Your task to perform on an android device: Open internet settings Image 0: 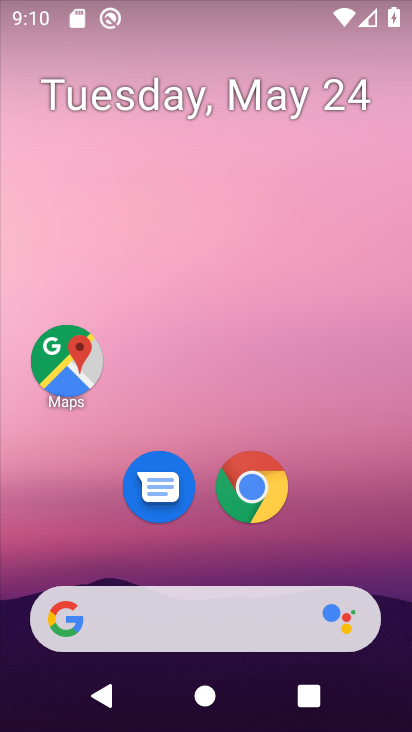
Step 0: drag from (208, 631) to (261, 29)
Your task to perform on an android device: Open internet settings Image 1: 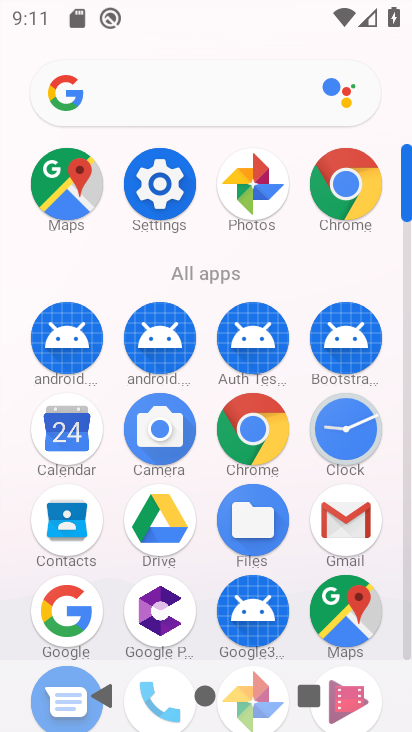
Step 1: click (154, 201)
Your task to perform on an android device: Open internet settings Image 2: 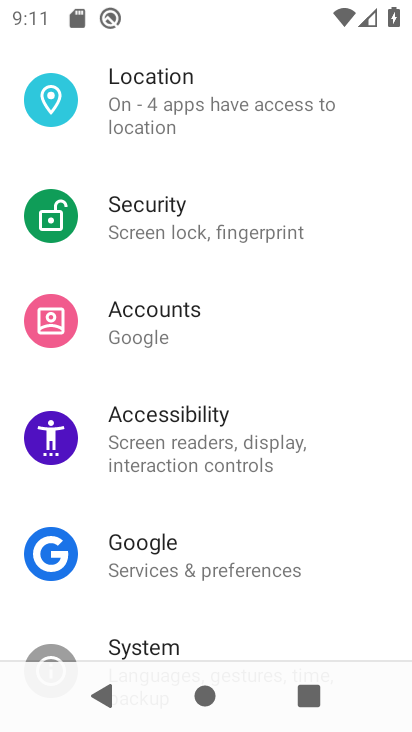
Step 2: drag from (298, 177) to (313, 592)
Your task to perform on an android device: Open internet settings Image 3: 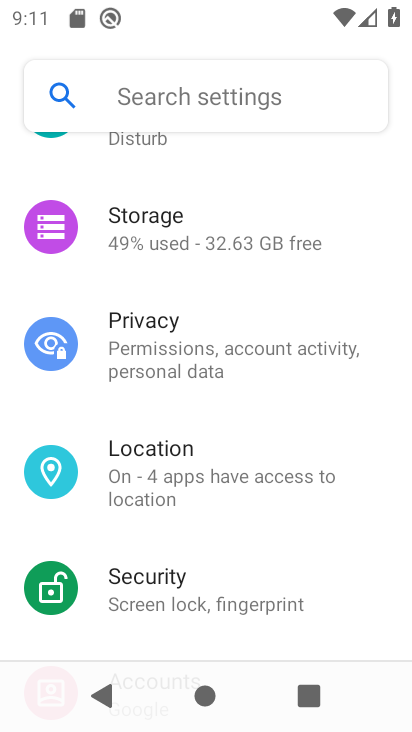
Step 3: drag from (306, 153) to (354, 573)
Your task to perform on an android device: Open internet settings Image 4: 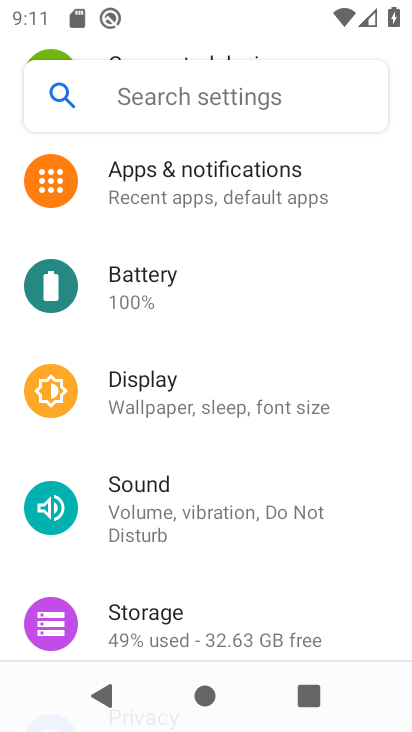
Step 4: drag from (234, 227) to (269, 552)
Your task to perform on an android device: Open internet settings Image 5: 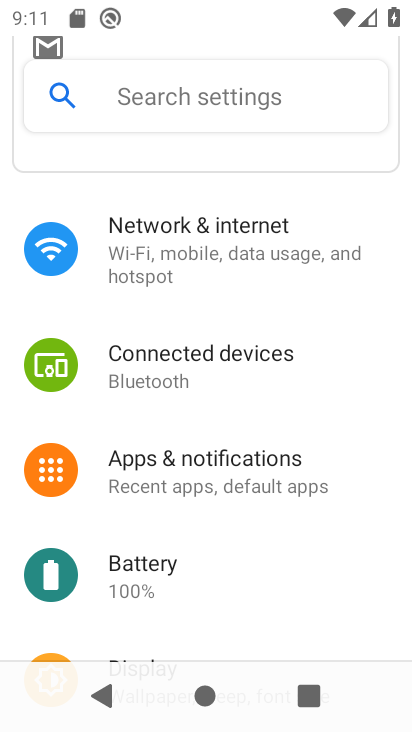
Step 5: click (185, 211)
Your task to perform on an android device: Open internet settings Image 6: 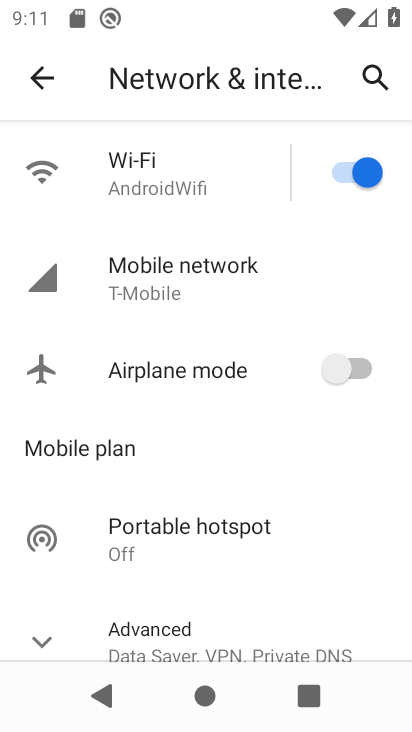
Step 6: click (160, 185)
Your task to perform on an android device: Open internet settings Image 7: 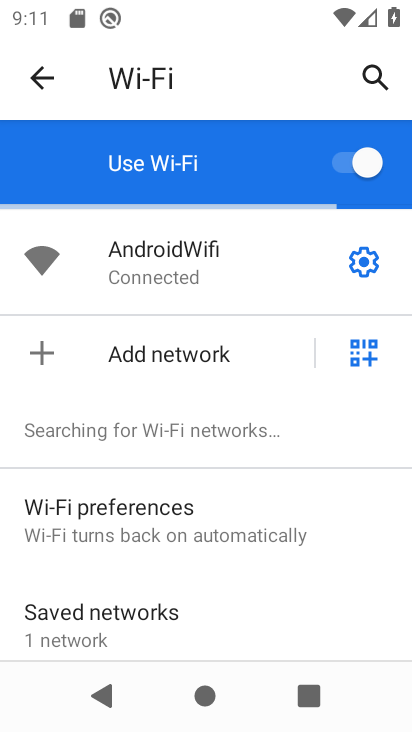
Step 7: task complete